Your task to perform on an android device: Toggle the flashlight Image 0: 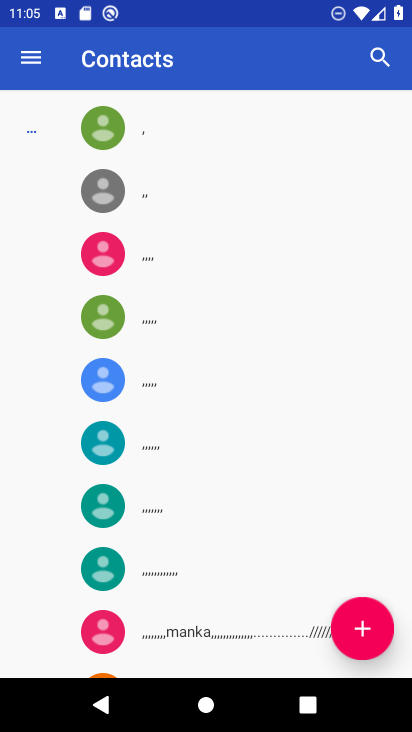
Step 0: press home button
Your task to perform on an android device: Toggle the flashlight Image 1: 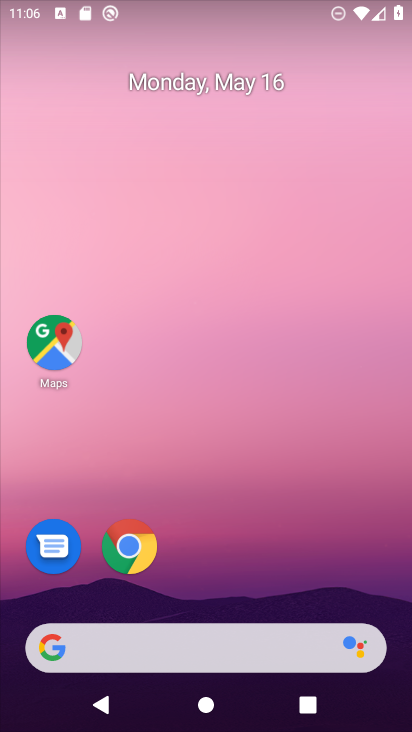
Step 1: drag from (224, 600) to (194, 98)
Your task to perform on an android device: Toggle the flashlight Image 2: 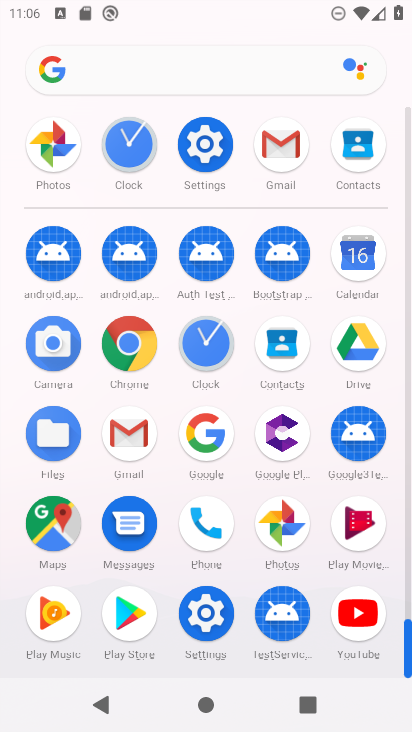
Step 2: click (199, 145)
Your task to perform on an android device: Toggle the flashlight Image 3: 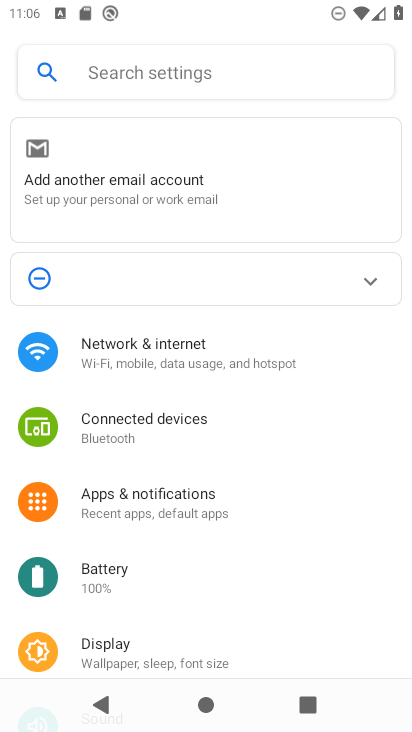
Step 3: task complete